Your task to perform on an android device: Search for a good pizza place on Maps Image 0: 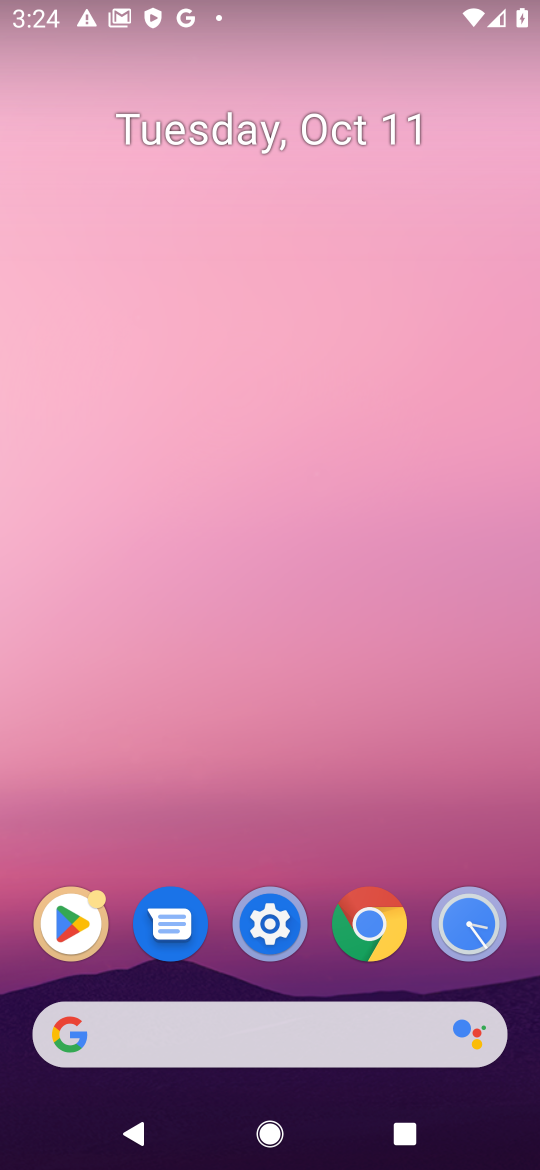
Step 0: drag from (315, 879) to (278, 342)
Your task to perform on an android device: Search for a good pizza place on Maps Image 1: 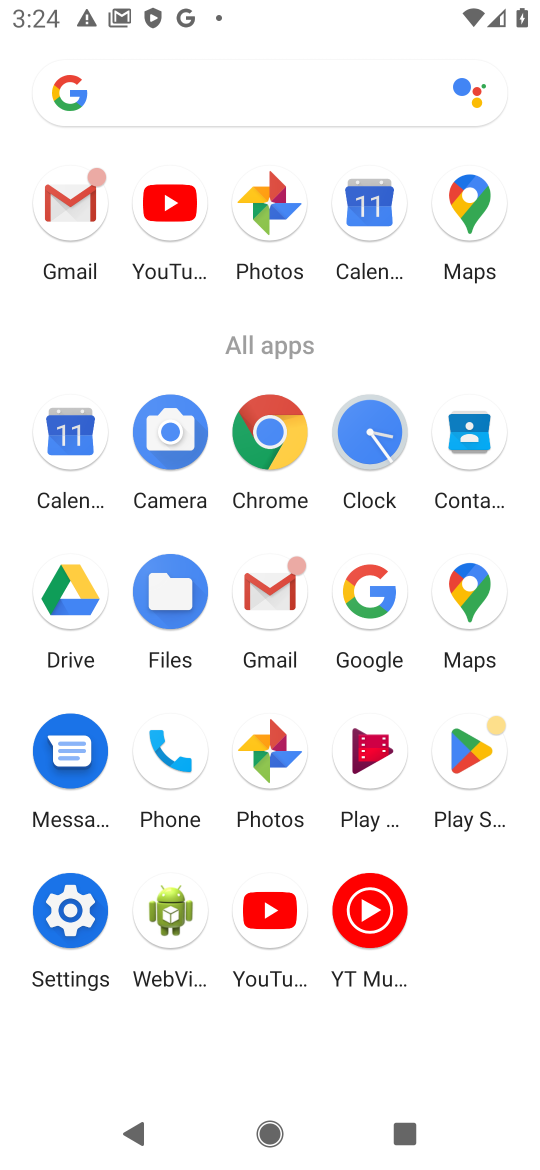
Step 1: click (450, 581)
Your task to perform on an android device: Search for a good pizza place on Maps Image 2: 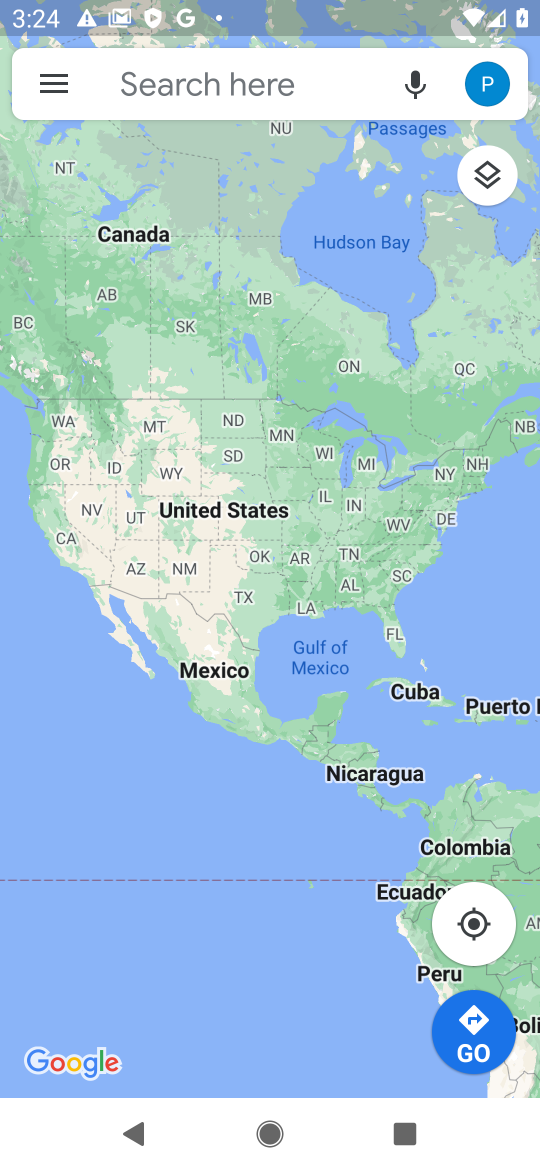
Step 2: click (273, 84)
Your task to perform on an android device: Search for a good pizza place on Maps Image 3: 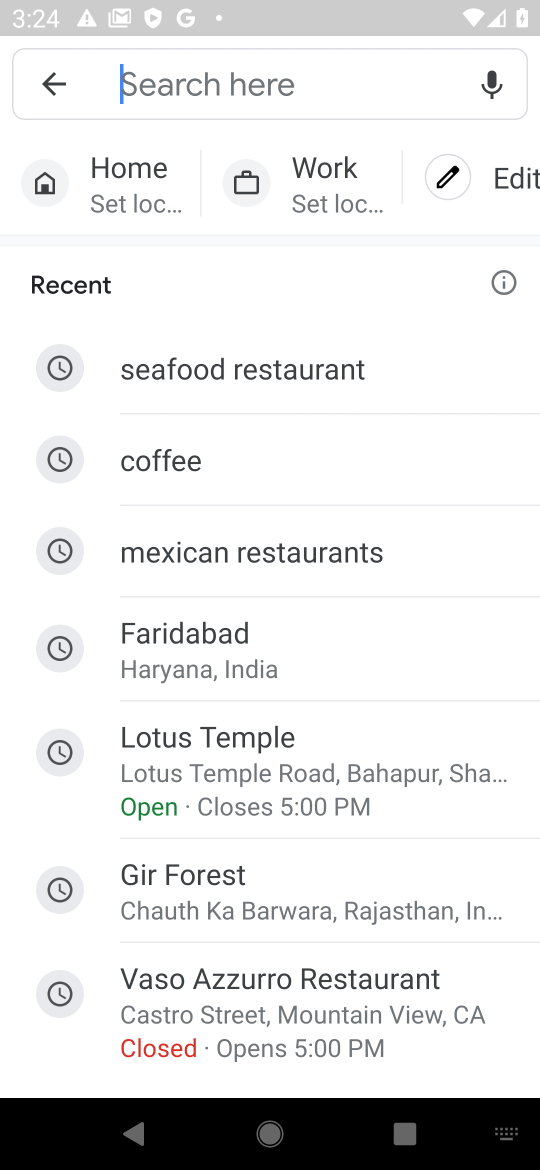
Step 3: type " good pizza place"
Your task to perform on an android device: Search for a good pizza place on Maps Image 4: 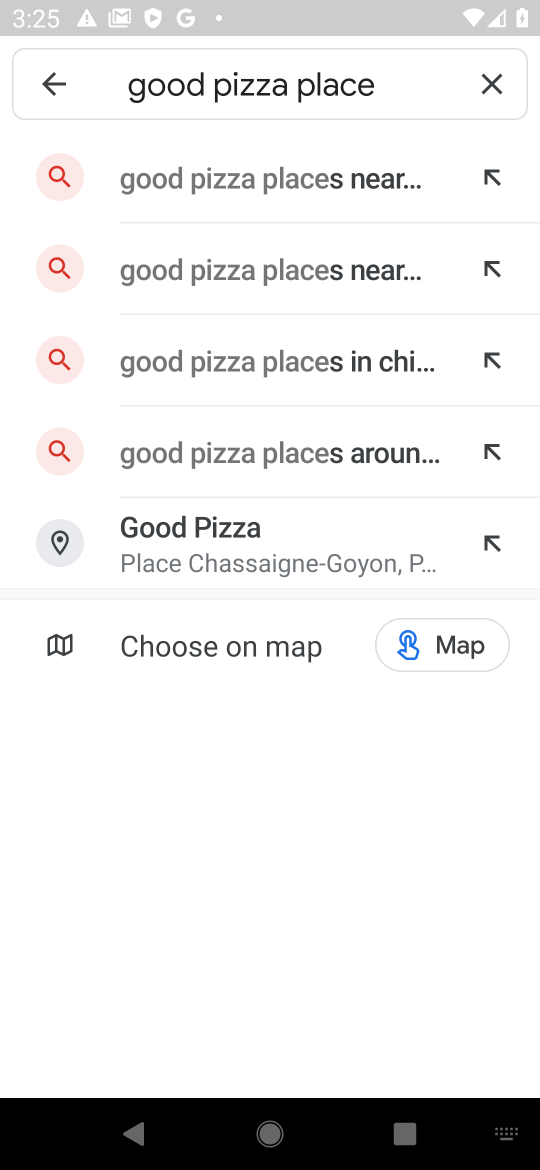
Step 4: click (345, 174)
Your task to perform on an android device: Search for a good pizza place on Maps Image 5: 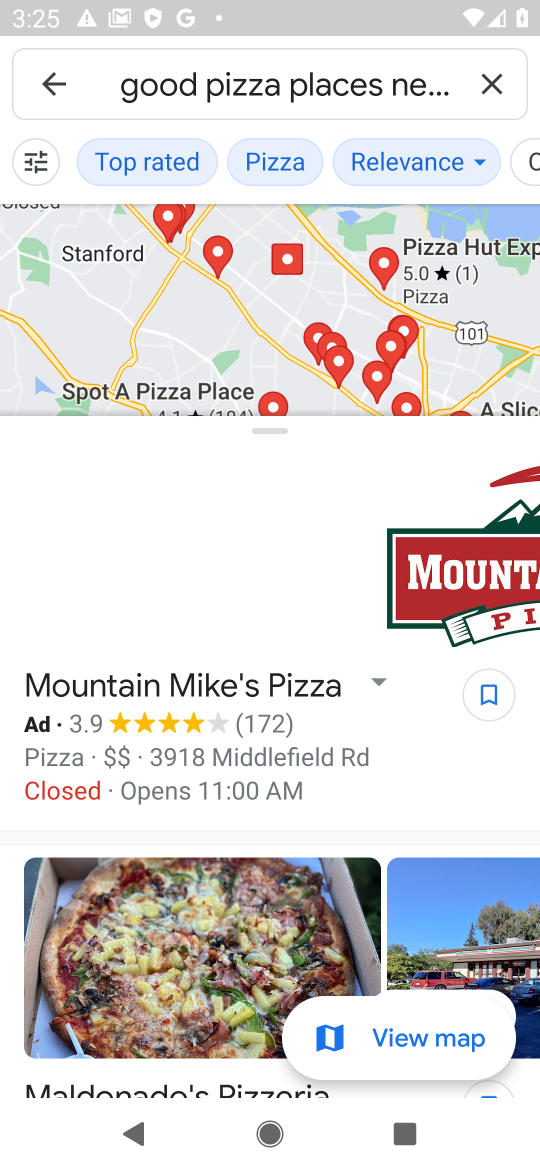
Step 5: task complete